Your task to perform on an android device: Go to accessibility settings Image 0: 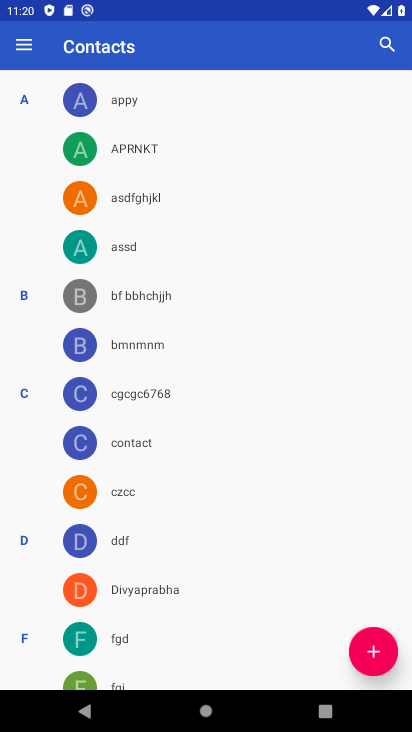
Step 0: press home button
Your task to perform on an android device: Go to accessibility settings Image 1: 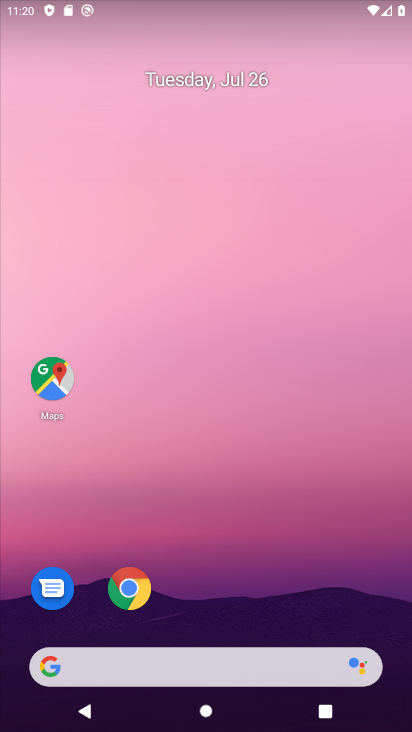
Step 1: drag from (20, 694) to (92, 205)
Your task to perform on an android device: Go to accessibility settings Image 2: 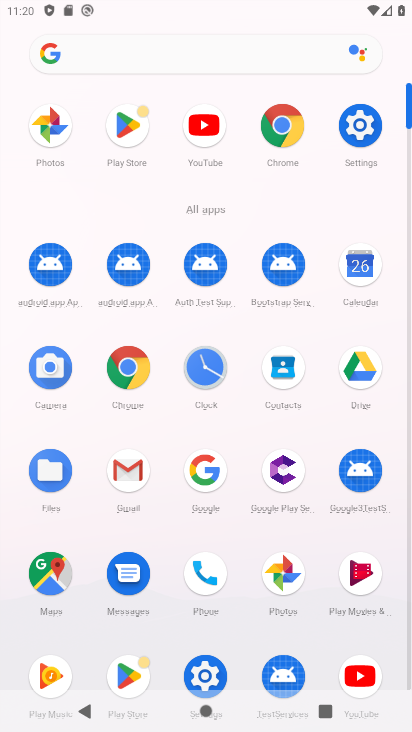
Step 2: click (198, 665)
Your task to perform on an android device: Go to accessibility settings Image 3: 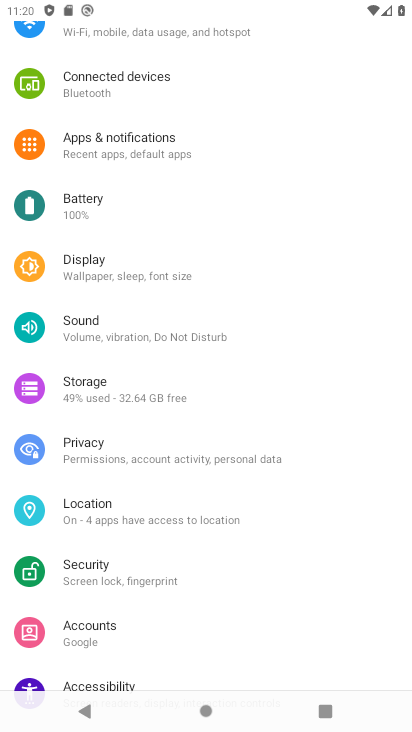
Step 3: drag from (282, 79) to (291, 464)
Your task to perform on an android device: Go to accessibility settings Image 4: 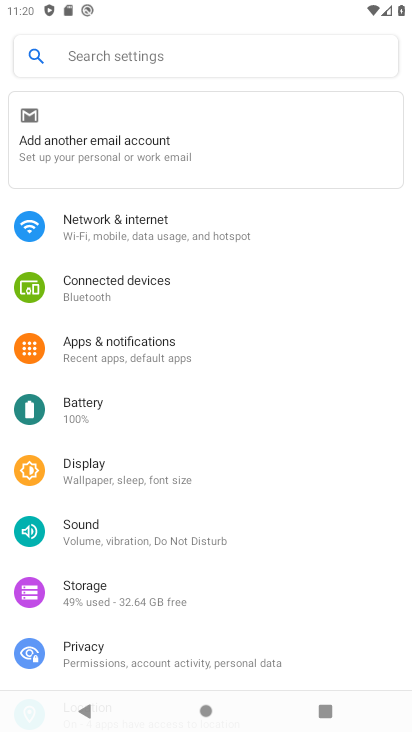
Step 4: drag from (261, 391) to (293, 107)
Your task to perform on an android device: Go to accessibility settings Image 5: 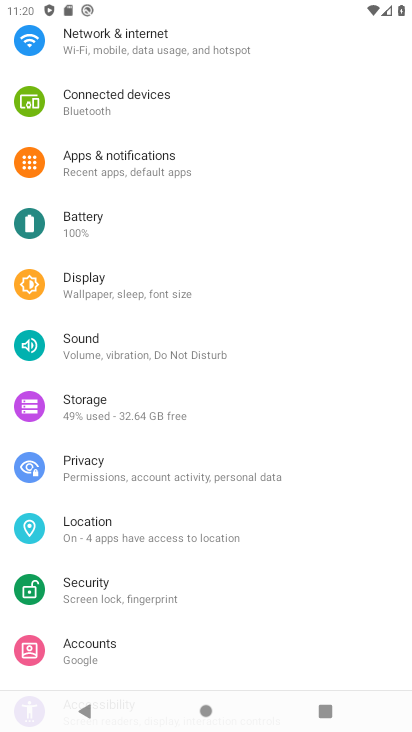
Step 5: drag from (236, 631) to (257, 256)
Your task to perform on an android device: Go to accessibility settings Image 6: 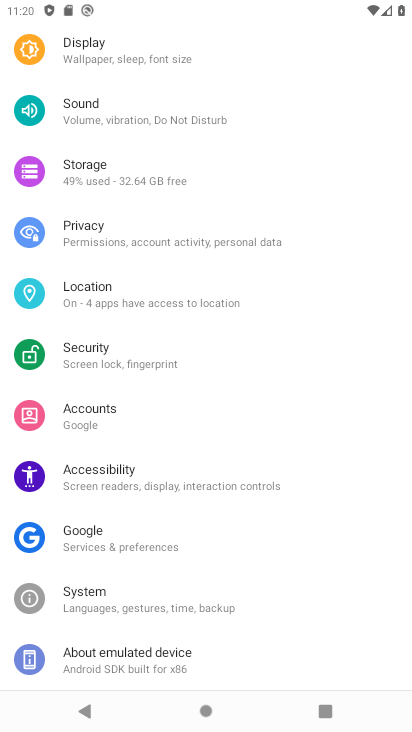
Step 6: click (106, 474)
Your task to perform on an android device: Go to accessibility settings Image 7: 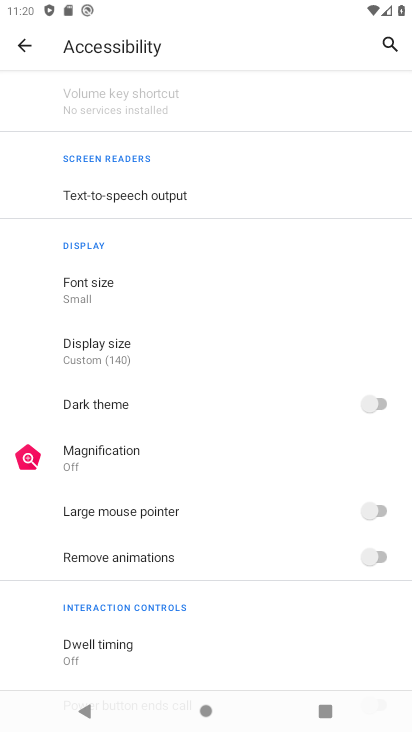
Step 7: task complete